Your task to perform on an android device: Go to Amazon Image 0: 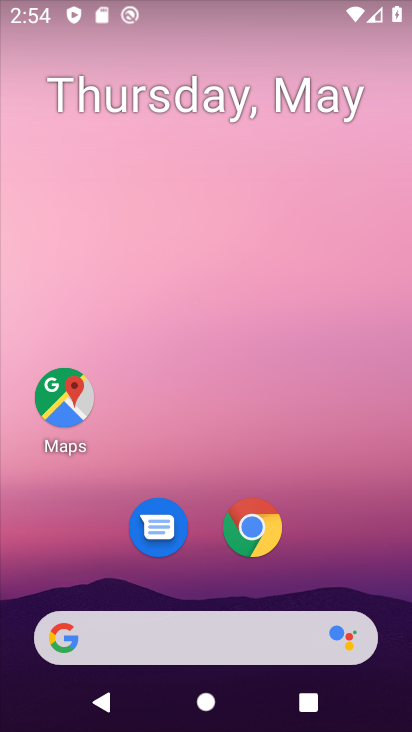
Step 0: click (243, 529)
Your task to perform on an android device: Go to Amazon Image 1: 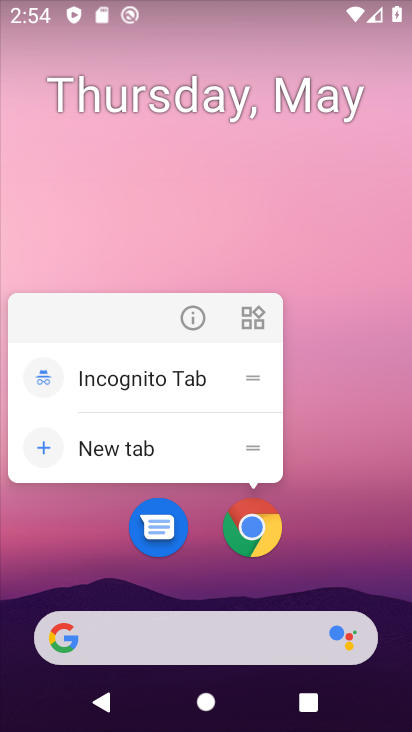
Step 1: click (257, 539)
Your task to perform on an android device: Go to Amazon Image 2: 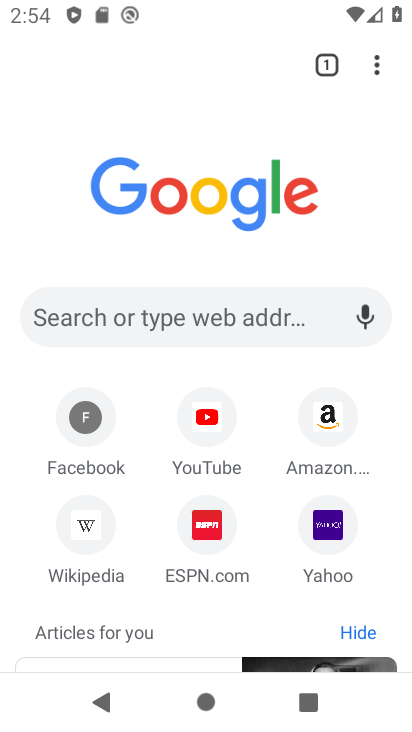
Step 2: click (338, 395)
Your task to perform on an android device: Go to Amazon Image 3: 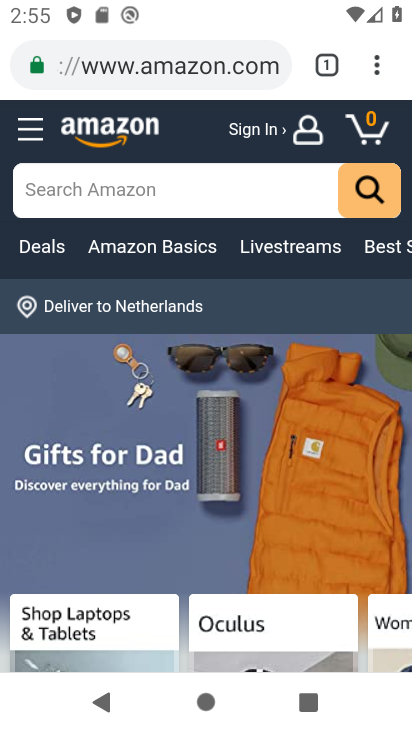
Step 3: task complete